Your task to perform on an android device: empty trash in the gmail app Image 0: 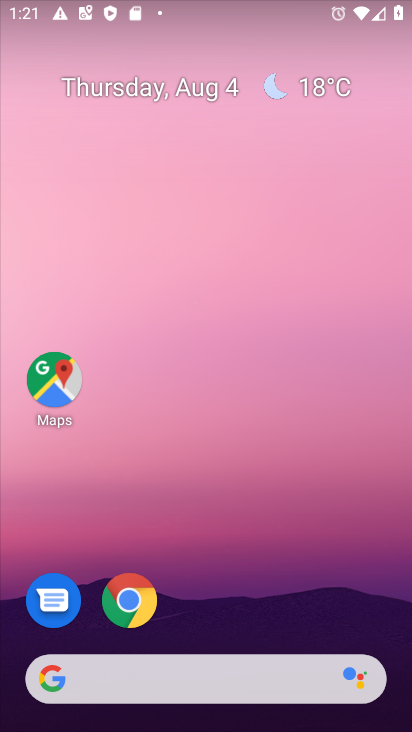
Step 0: drag from (135, 684) to (367, 151)
Your task to perform on an android device: empty trash in the gmail app Image 1: 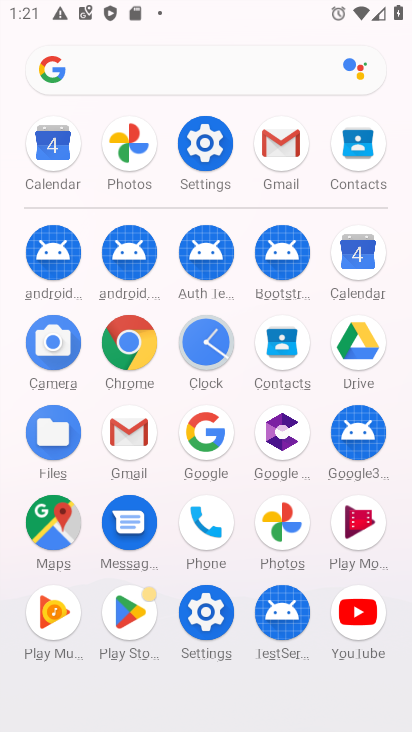
Step 1: click (281, 150)
Your task to perform on an android device: empty trash in the gmail app Image 2: 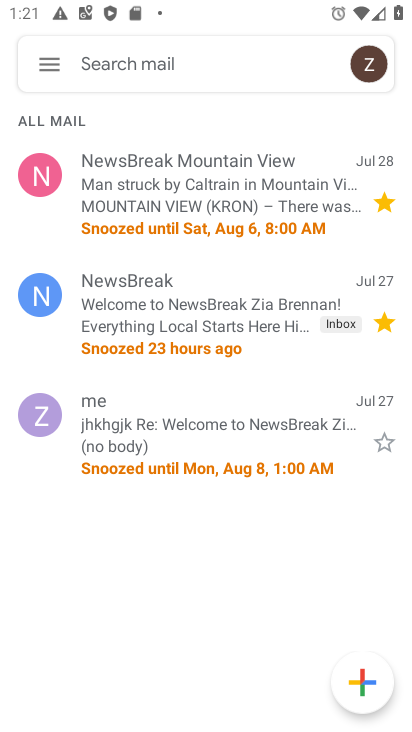
Step 2: click (42, 60)
Your task to perform on an android device: empty trash in the gmail app Image 3: 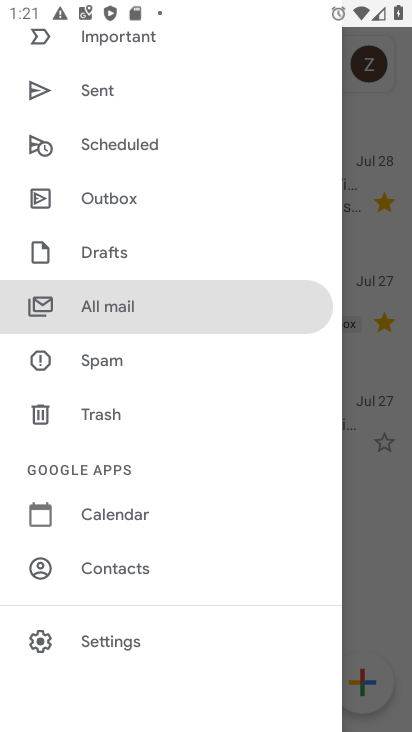
Step 3: click (116, 416)
Your task to perform on an android device: empty trash in the gmail app Image 4: 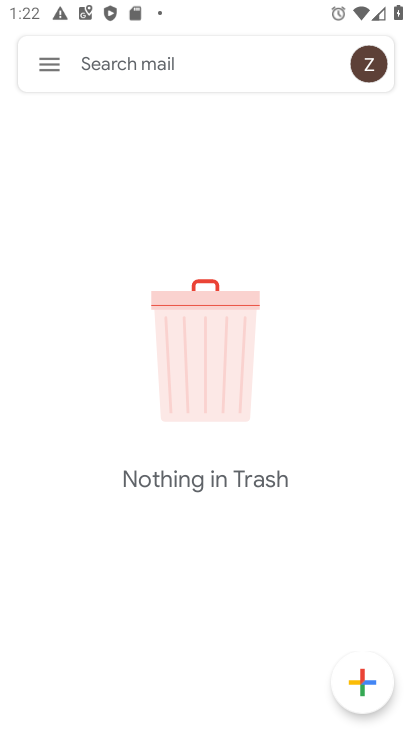
Step 4: task complete